Your task to perform on an android device: Open Google Chrome Image 0: 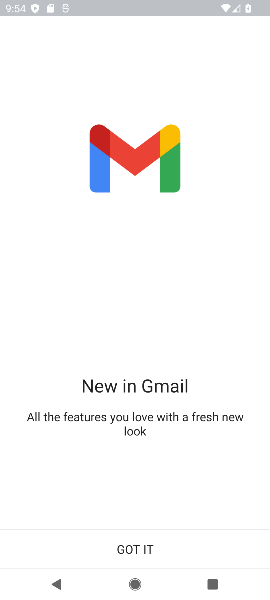
Step 0: press home button
Your task to perform on an android device: Open Google Chrome Image 1: 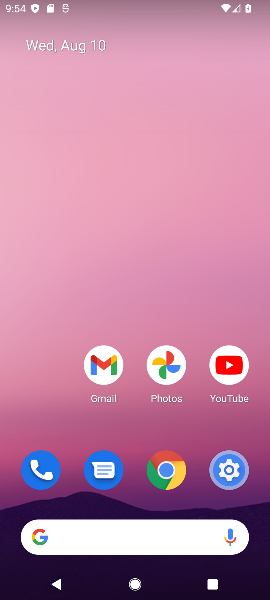
Step 1: click (163, 479)
Your task to perform on an android device: Open Google Chrome Image 2: 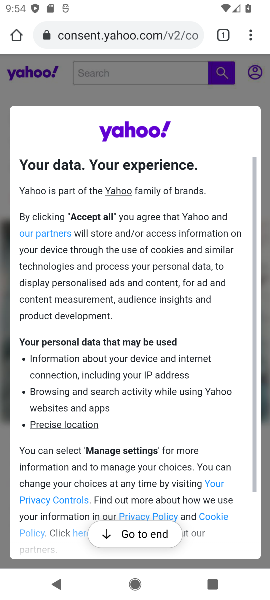
Step 2: task complete